Your task to perform on an android device: Find coffee shops on Maps Image 0: 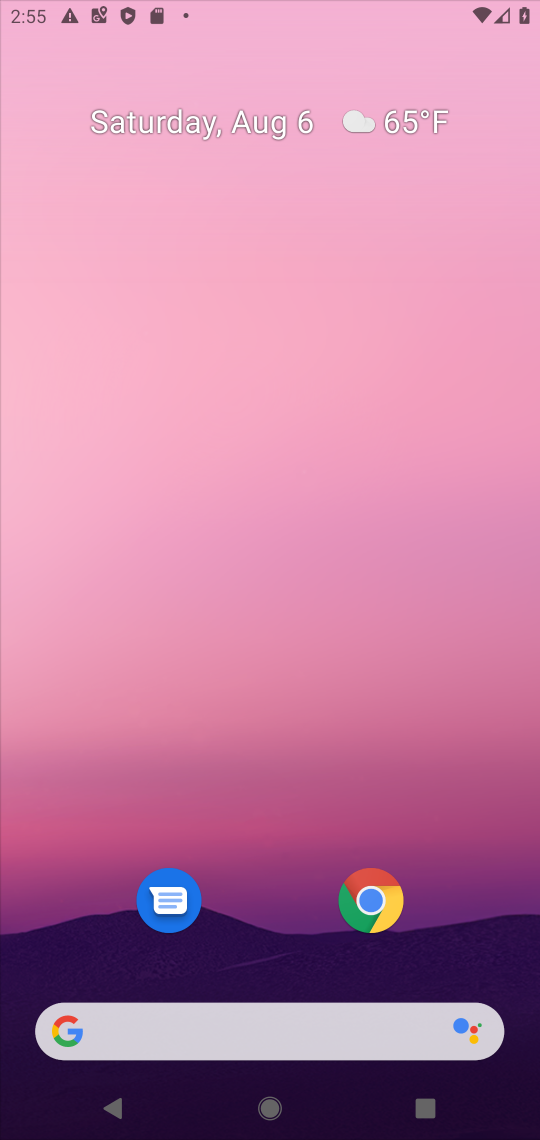
Step 0: press home button
Your task to perform on an android device: Find coffee shops on Maps Image 1: 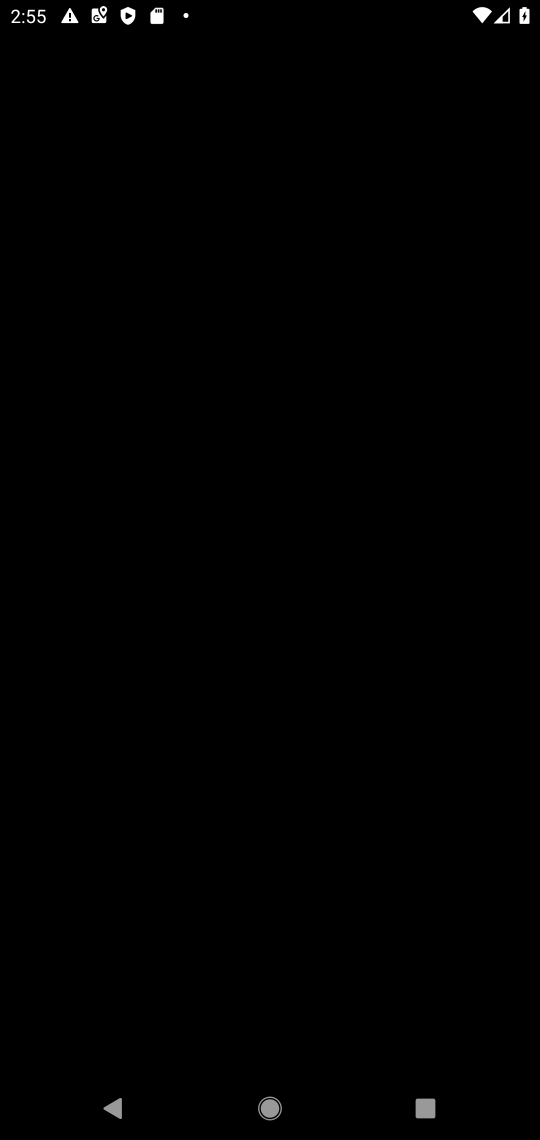
Step 1: press home button
Your task to perform on an android device: Find coffee shops on Maps Image 2: 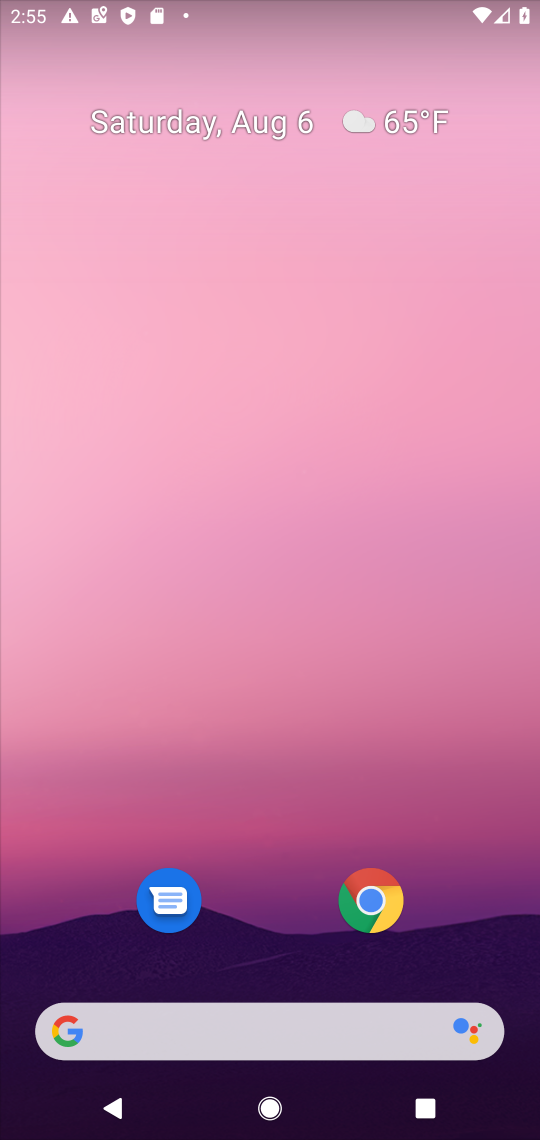
Step 2: drag from (272, 882) to (315, 163)
Your task to perform on an android device: Find coffee shops on Maps Image 3: 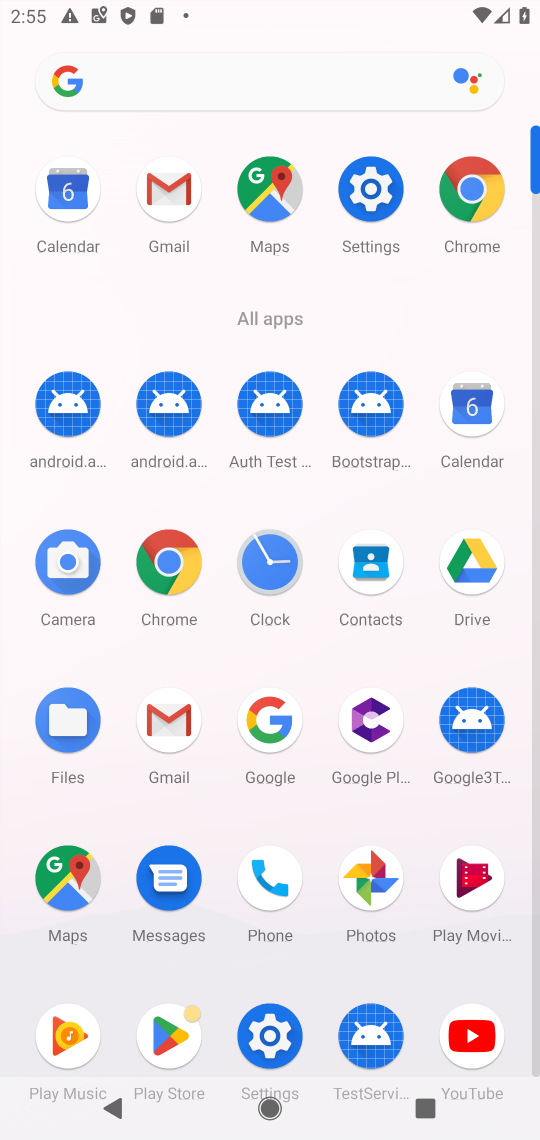
Step 3: click (281, 182)
Your task to perform on an android device: Find coffee shops on Maps Image 4: 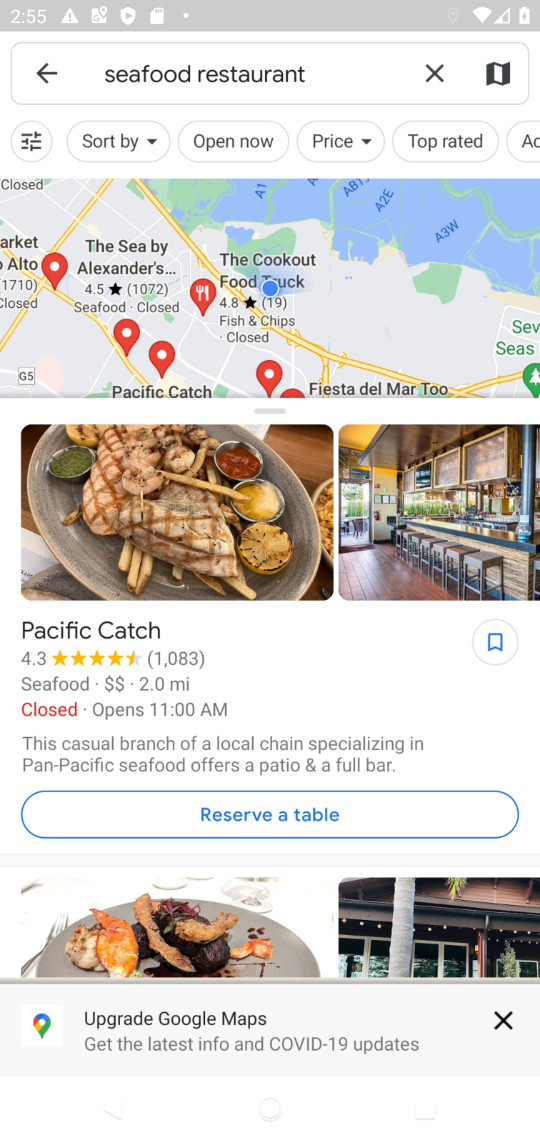
Step 4: click (441, 73)
Your task to perform on an android device: Find coffee shops on Maps Image 5: 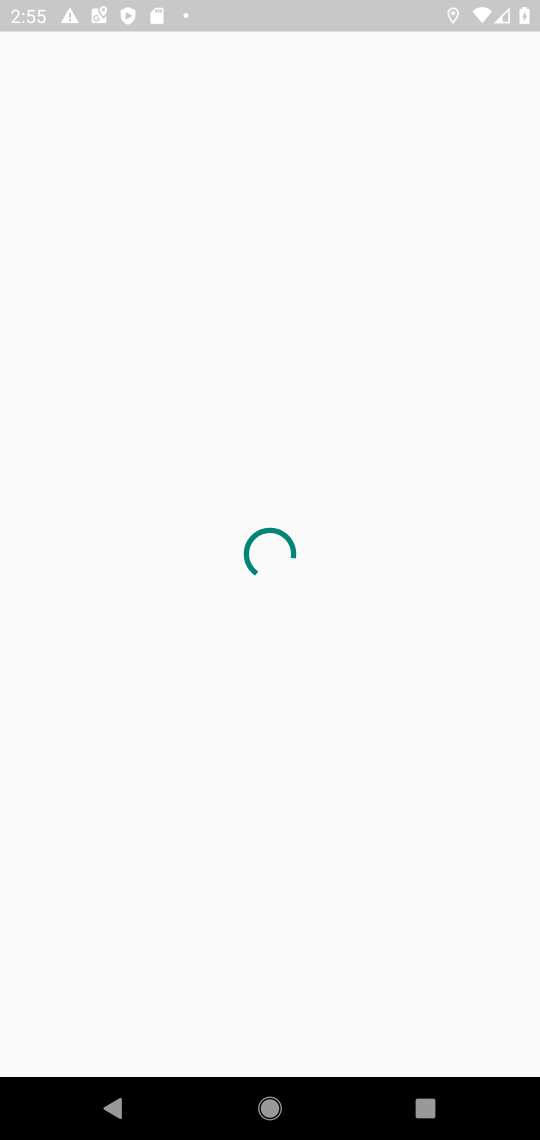
Step 5: type "coffee shops"
Your task to perform on an android device: Find coffee shops on Maps Image 6: 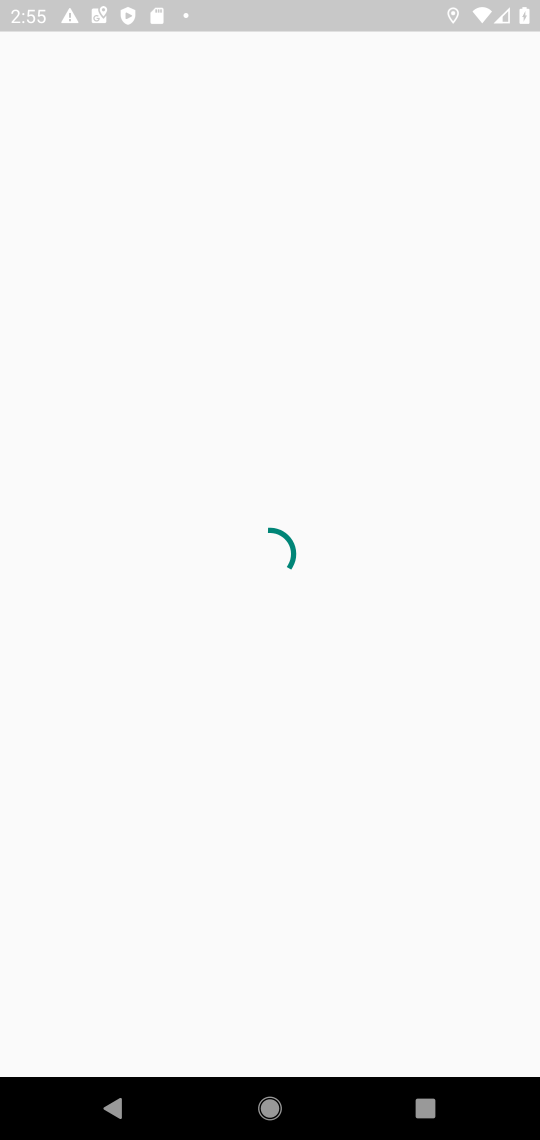
Step 6: click (205, 72)
Your task to perform on an android device: Find coffee shops on Maps Image 7: 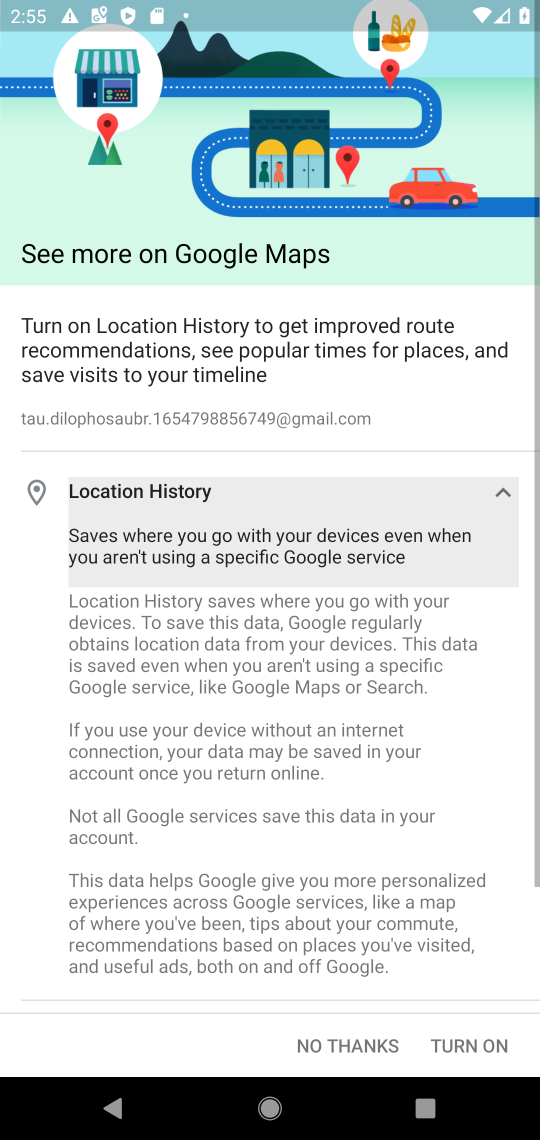
Step 7: press back button
Your task to perform on an android device: Find coffee shops on Maps Image 8: 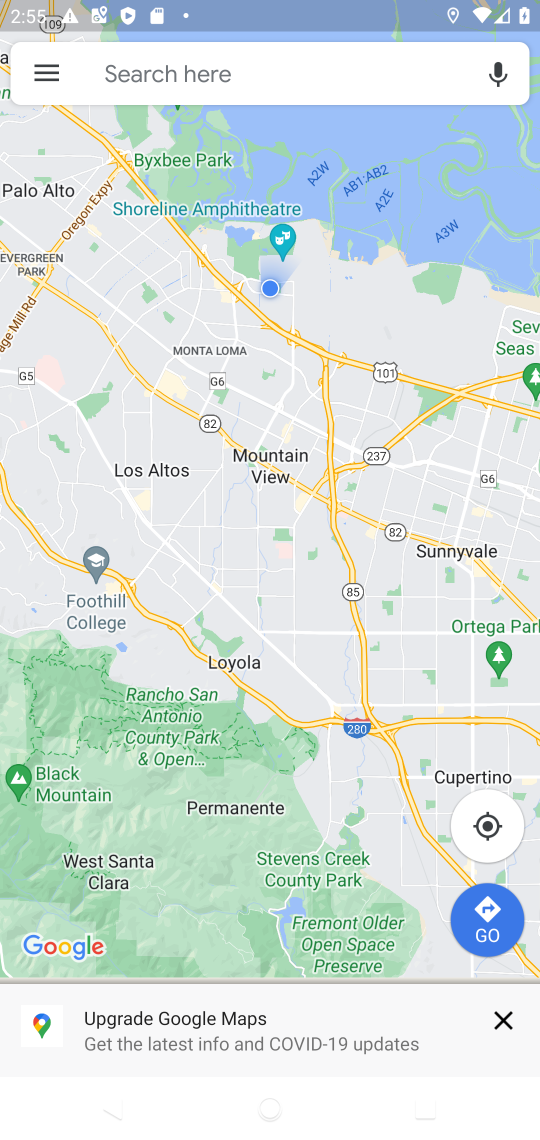
Step 8: press back button
Your task to perform on an android device: Find coffee shops on Maps Image 9: 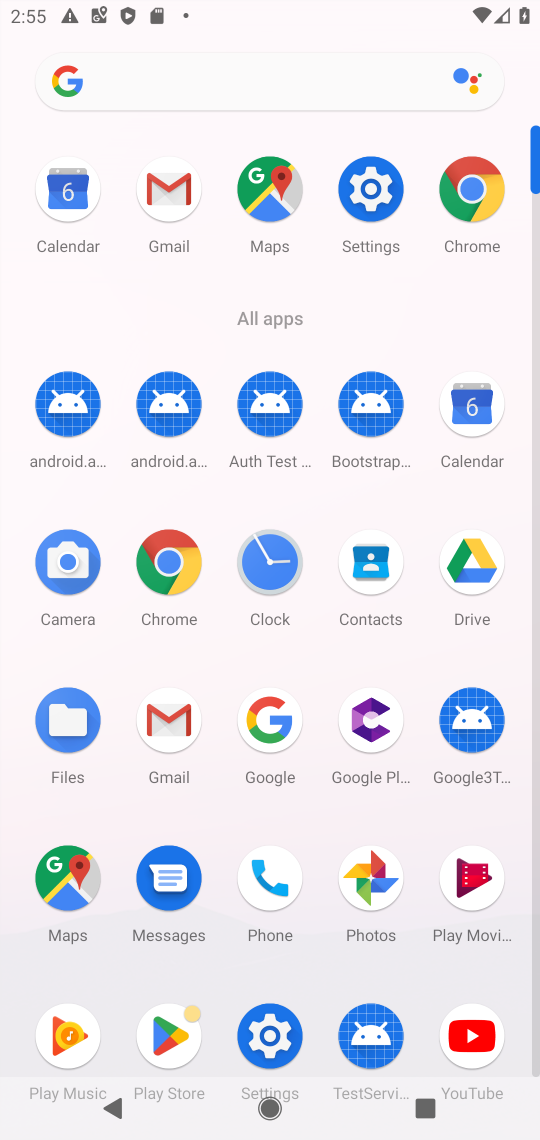
Step 9: type "coffee shops"
Your task to perform on an android device: Find coffee shops on Maps Image 10: 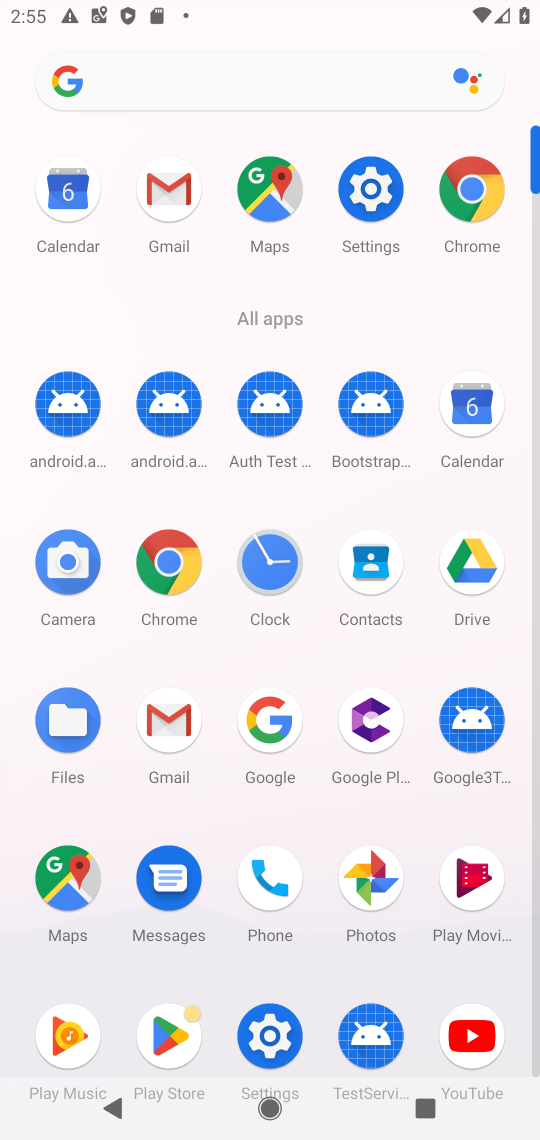
Step 10: click (61, 887)
Your task to perform on an android device: Find coffee shops on Maps Image 11: 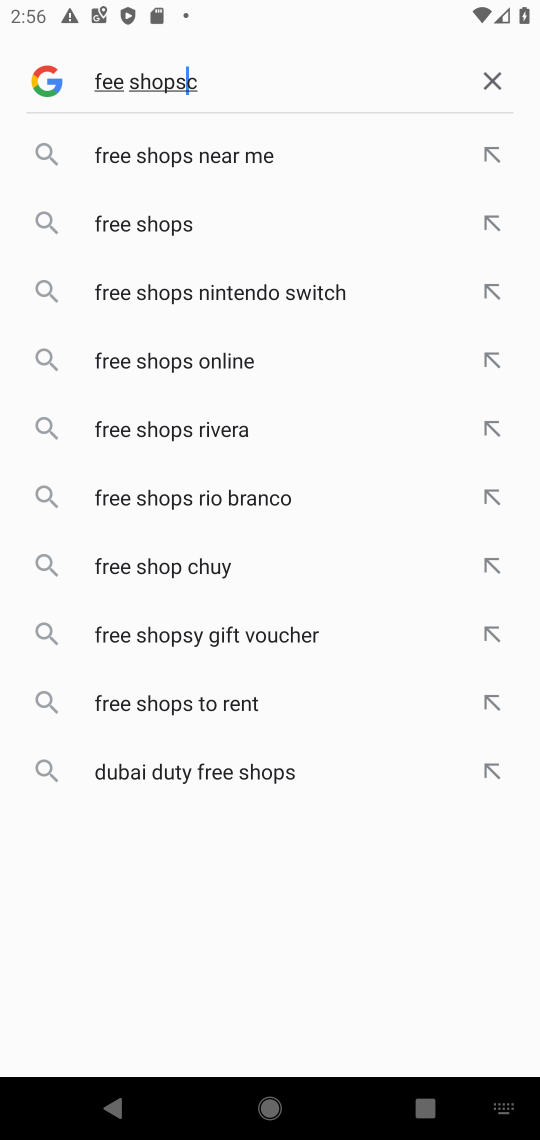
Step 11: press home button
Your task to perform on an android device: Find coffee shops on Maps Image 12: 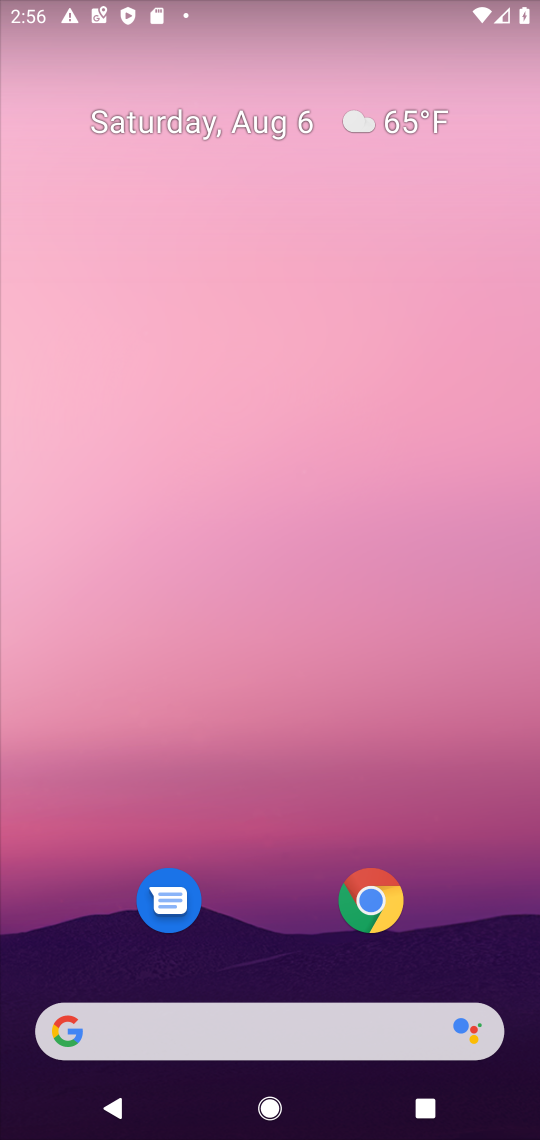
Step 12: drag from (288, 942) to (251, 200)
Your task to perform on an android device: Find coffee shops on Maps Image 13: 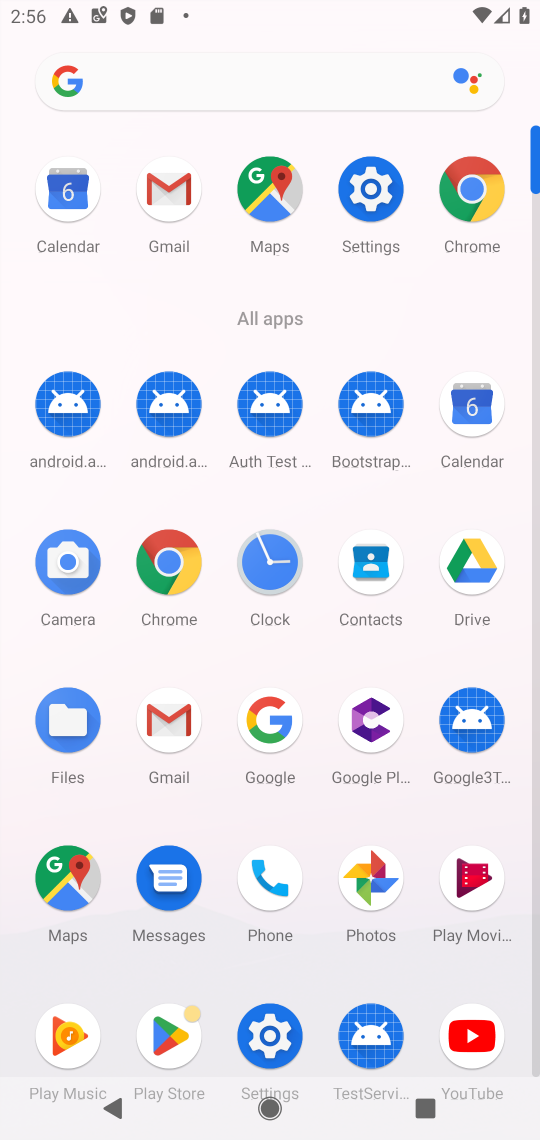
Step 13: click (52, 883)
Your task to perform on an android device: Find coffee shops on Maps Image 14: 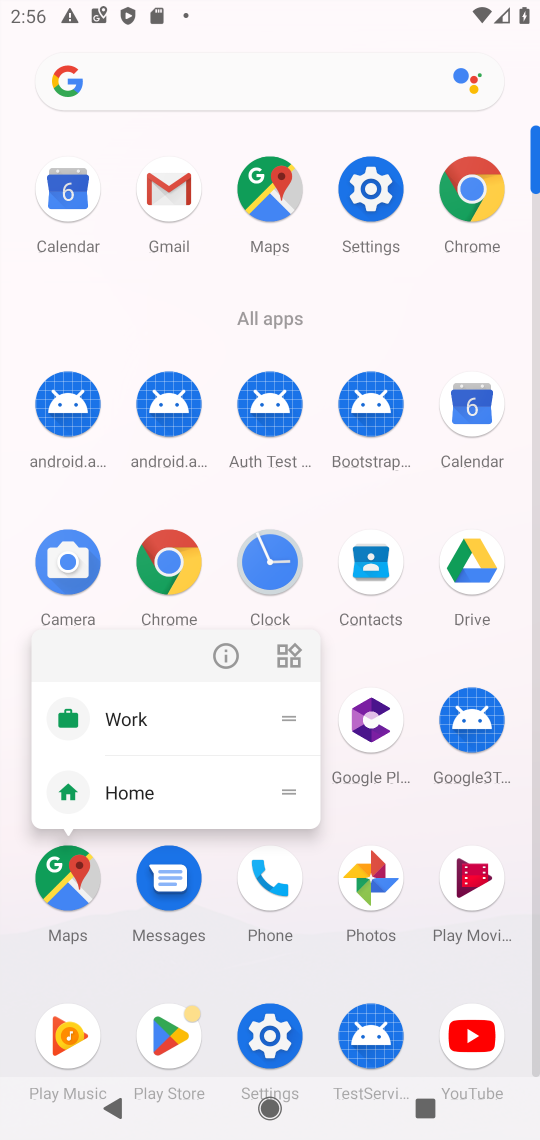
Step 14: click (49, 885)
Your task to perform on an android device: Find coffee shops on Maps Image 15: 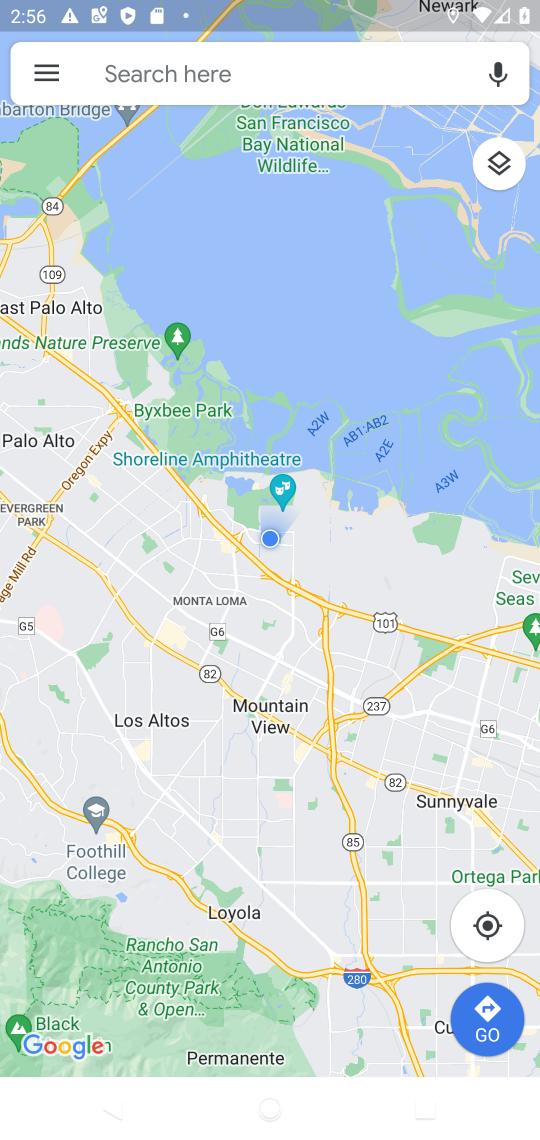
Step 15: type "coffee shops"
Your task to perform on an android device: Find coffee shops on Maps Image 16: 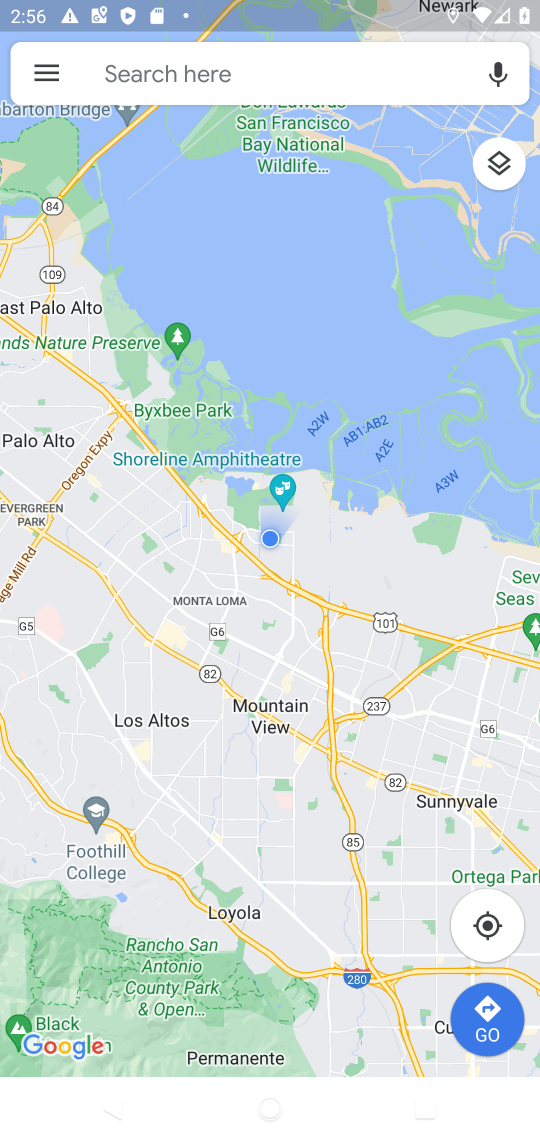
Step 16: click (173, 68)
Your task to perform on an android device: Find coffee shops on Maps Image 17: 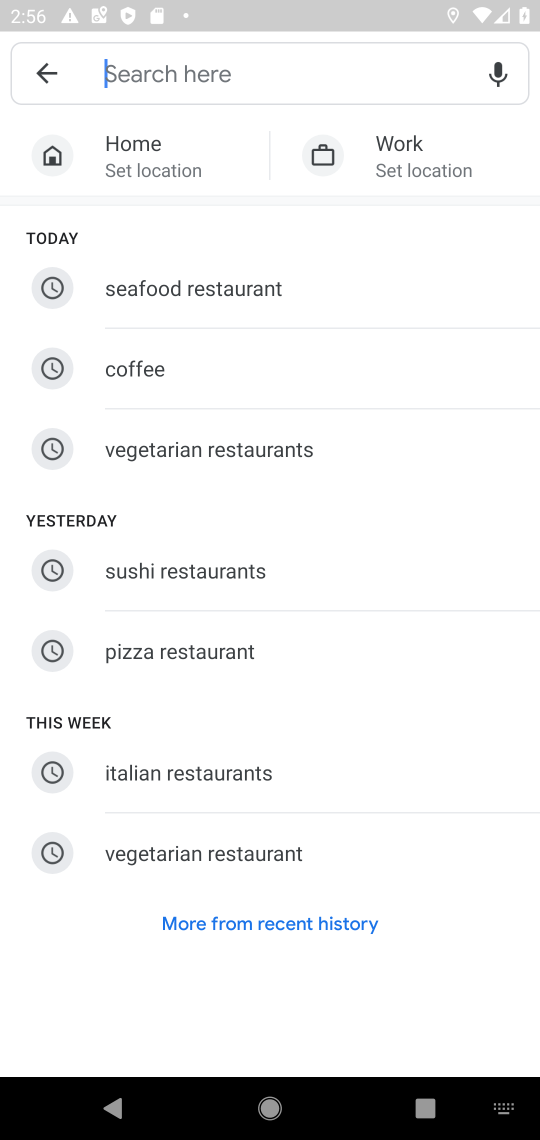
Step 17: click (185, 67)
Your task to perform on an android device: Find coffee shops on Maps Image 18: 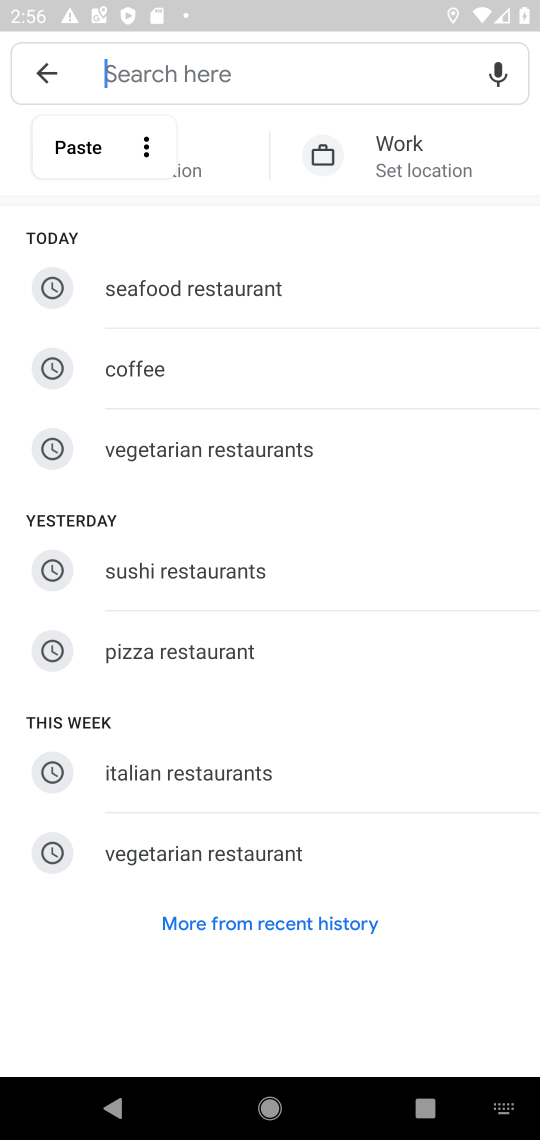
Step 18: type "coffee shops"
Your task to perform on an android device: Find coffee shops on Maps Image 19: 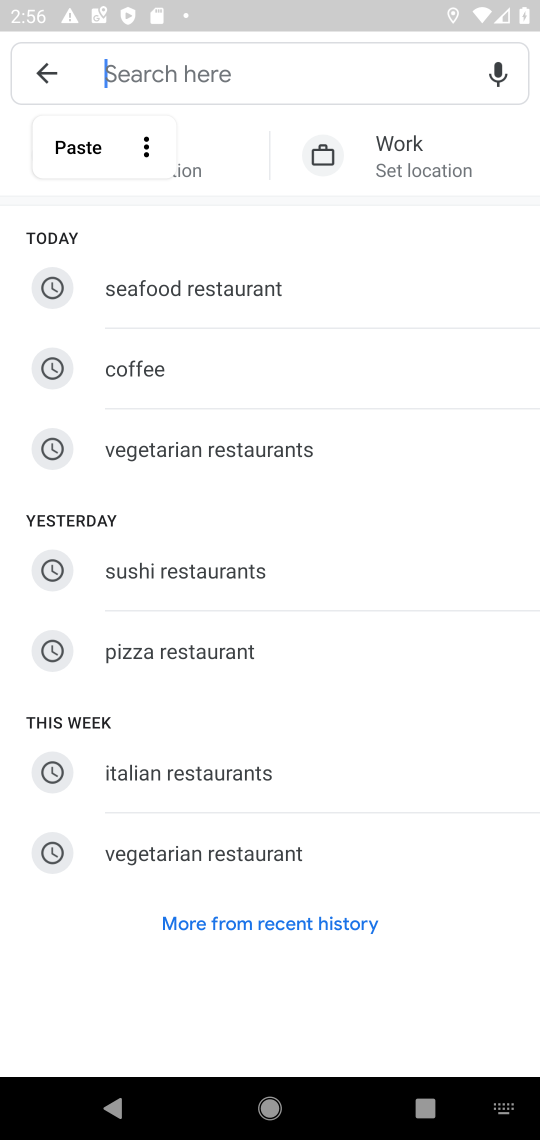
Step 19: click (150, 62)
Your task to perform on an android device: Find coffee shops on Maps Image 20: 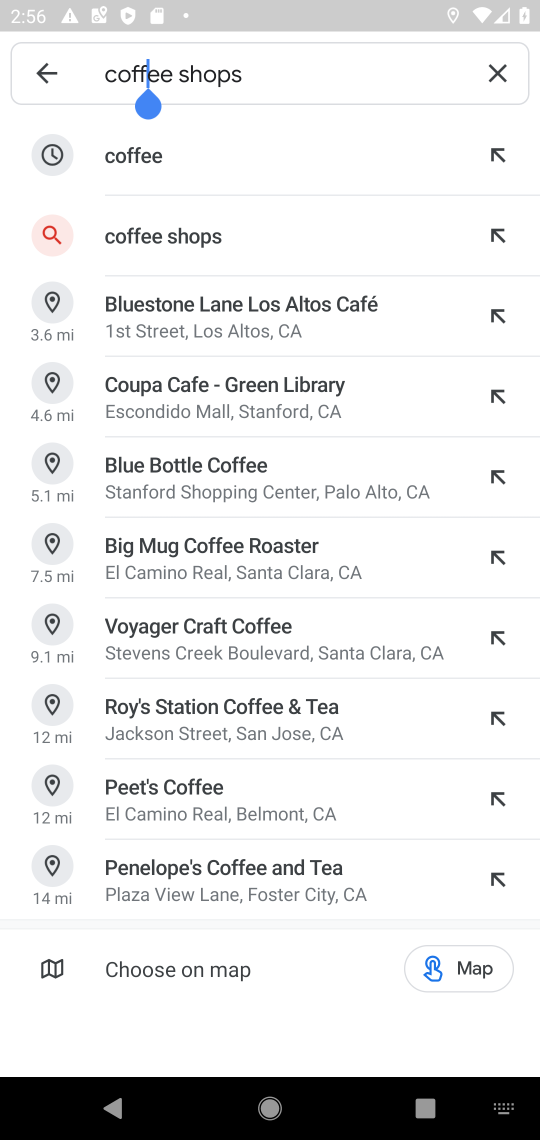
Step 20: press enter
Your task to perform on an android device: Find coffee shops on Maps Image 21: 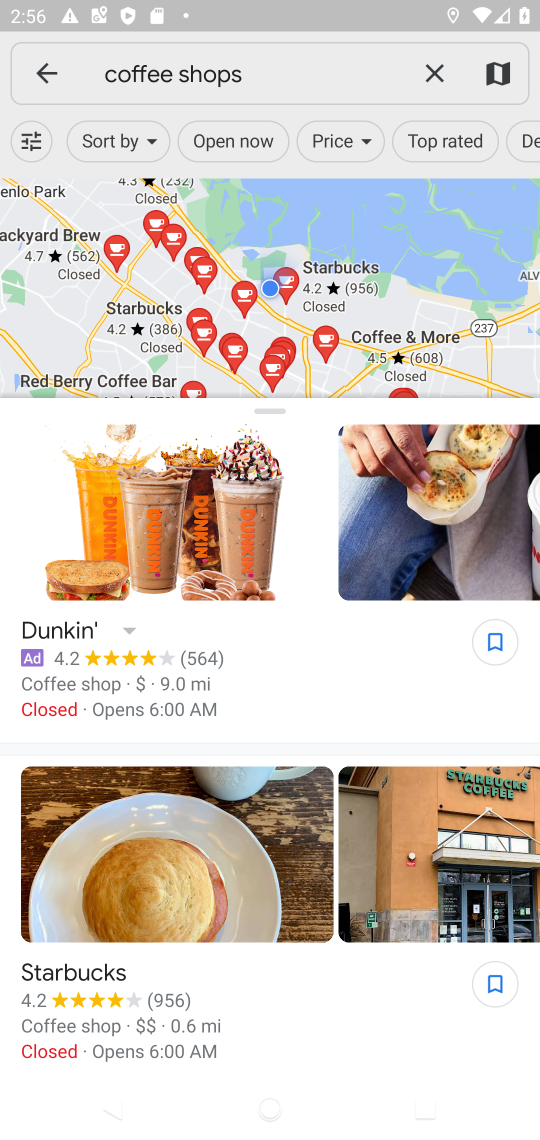
Step 21: task complete